Your task to perform on an android device: Go to Android settings Image 0: 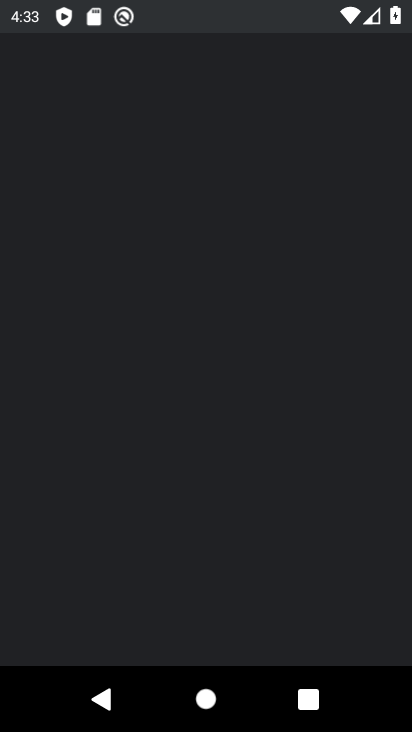
Step 0: drag from (334, 586) to (345, 256)
Your task to perform on an android device: Go to Android settings Image 1: 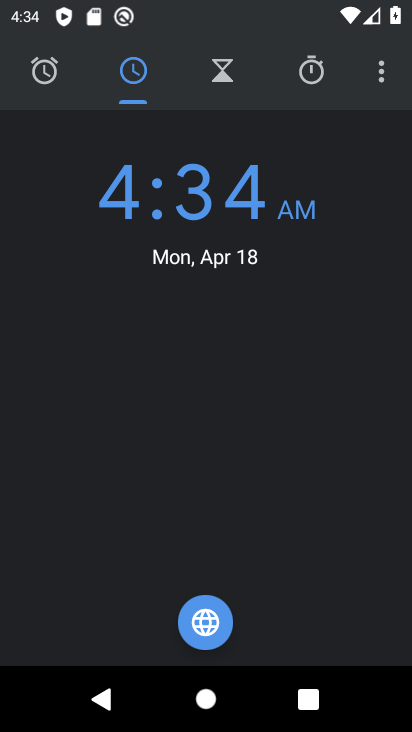
Step 1: press home button
Your task to perform on an android device: Go to Android settings Image 2: 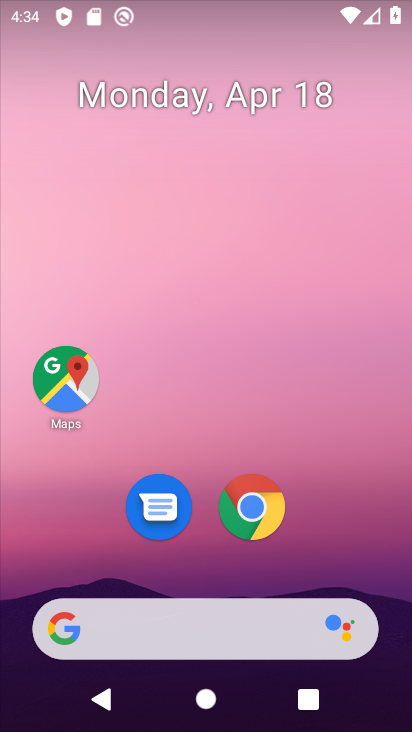
Step 2: drag from (248, 521) to (219, 59)
Your task to perform on an android device: Go to Android settings Image 3: 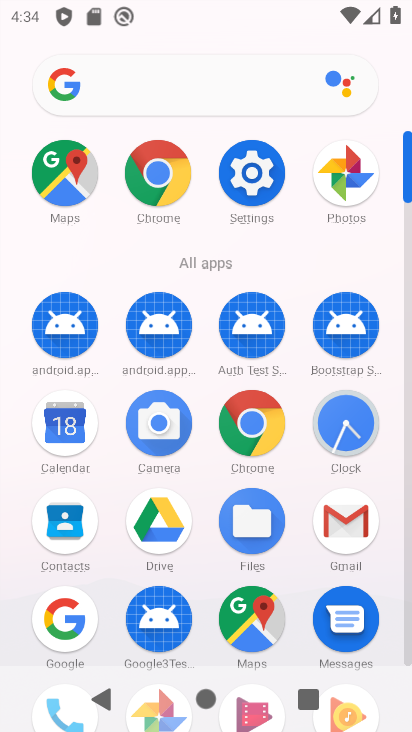
Step 3: click (257, 184)
Your task to perform on an android device: Go to Android settings Image 4: 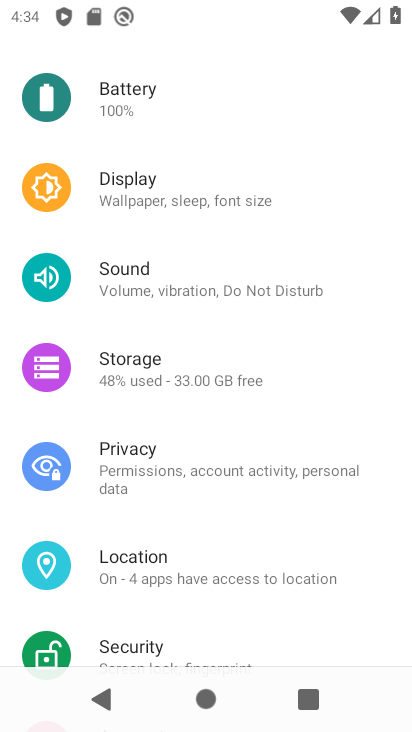
Step 4: drag from (268, 200) to (198, 680)
Your task to perform on an android device: Go to Android settings Image 5: 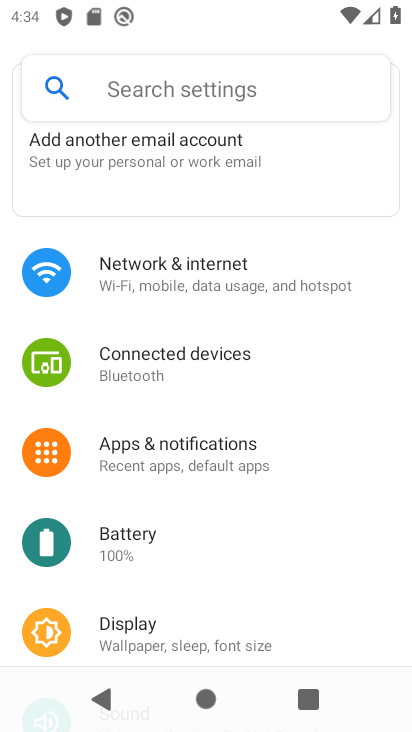
Step 5: drag from (263, 595) to (284, 163)
Your task to perform on an android device: Go to Android settings Image 6: 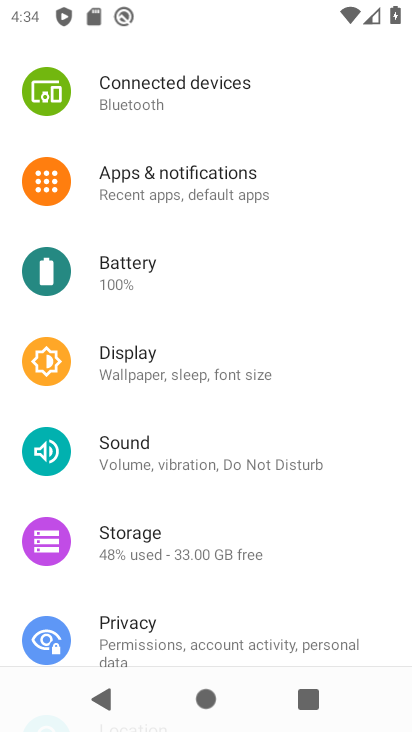
Step 6: drag from (330, 630) to (299, 186)
Your task to perform on an android device: Go to Android settings Image 7: 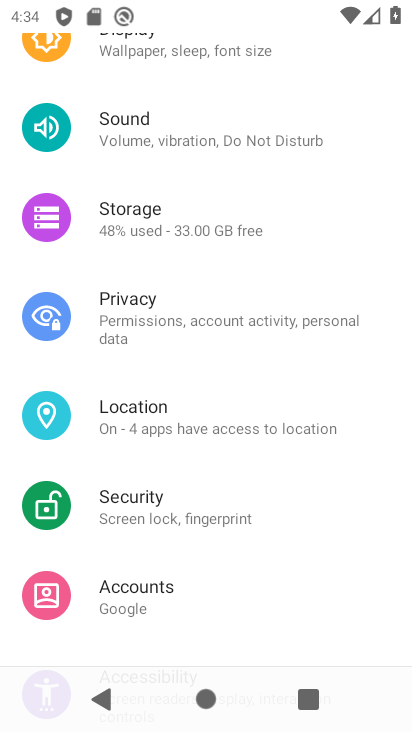
Step 7: drag from (275, 565) to (248, 168)
Your task to perform on an android device: Go to Android settings Image 8: 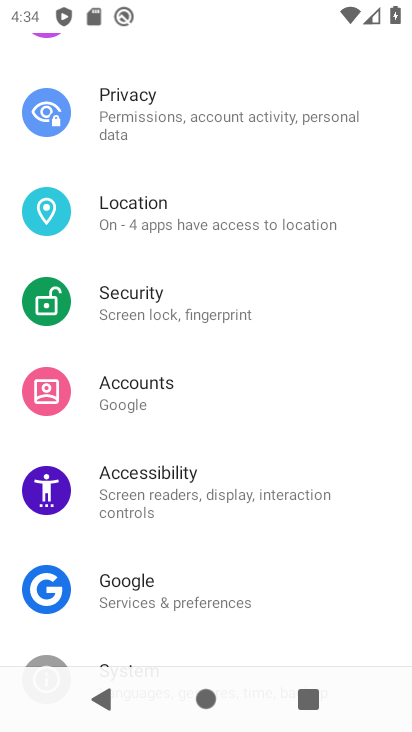
Step 8: drag from (226, 574) to (226, 219)
Your task to perform on an android device: Go to Android settings Image 9: 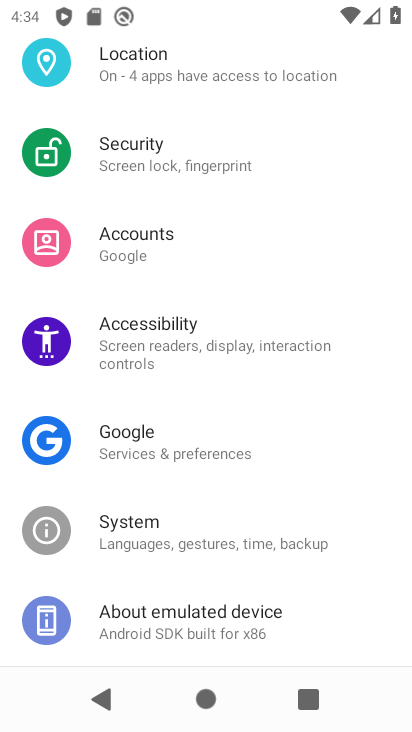
Step 9: click (230, 621)
Your task to perform on an android device: Go to Android settings Image 10: 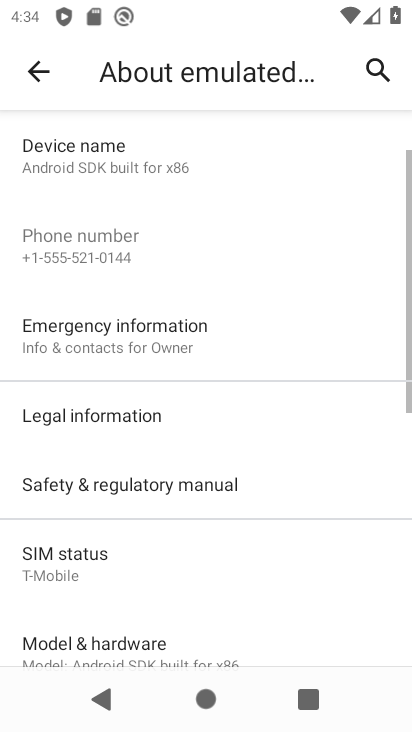
Step 10: drag from (180, 288) to (177, 703)
Your task to perform on an android device: Go to Android settings Image 11: 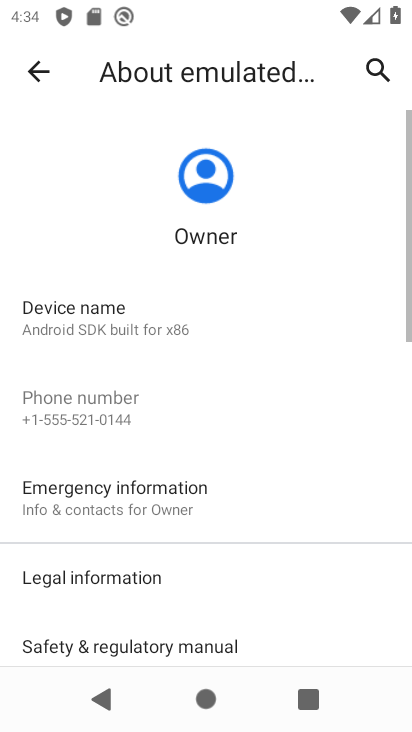
Step 11: drag from (194, 252) to (206, 73)
Your task to perform on an android device: Go to Android settings Image 12: 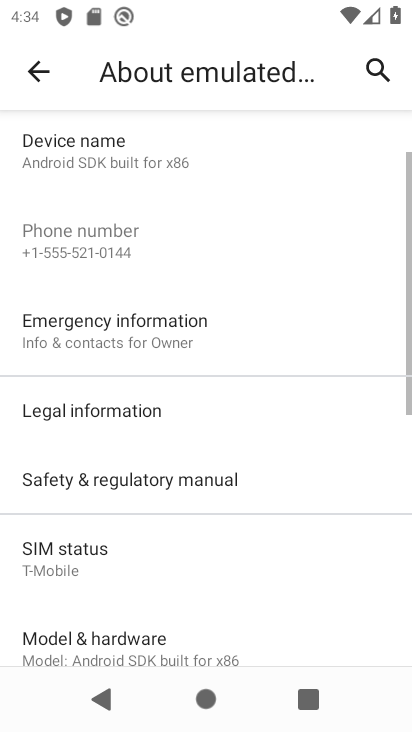
Step 12: drag from (181, 596) to (165, 176)
Your task to perform on an android device: Go to Android settings Image 13: 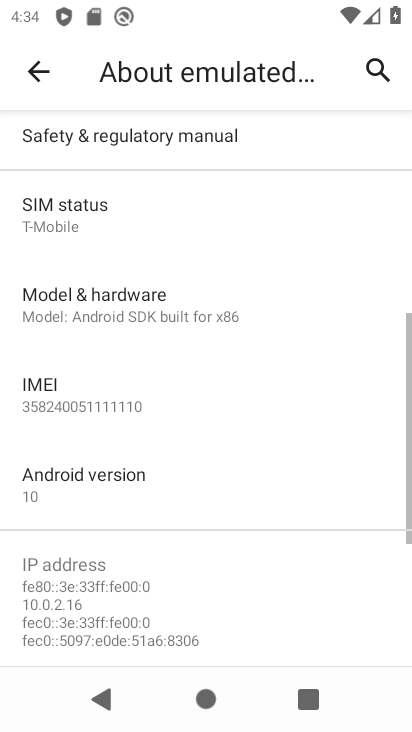
Step 13: drag from (151, 589) to (178, 193)
Your task to perform on an android device: Go to Android settings Image 14: 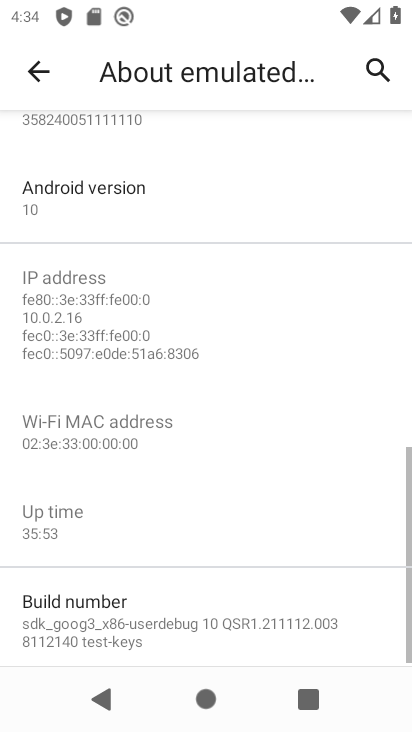
Step 14: drag from (219, 186) to (204, 623)
Your task to perform on an android device: Go to Android settings Image 15: 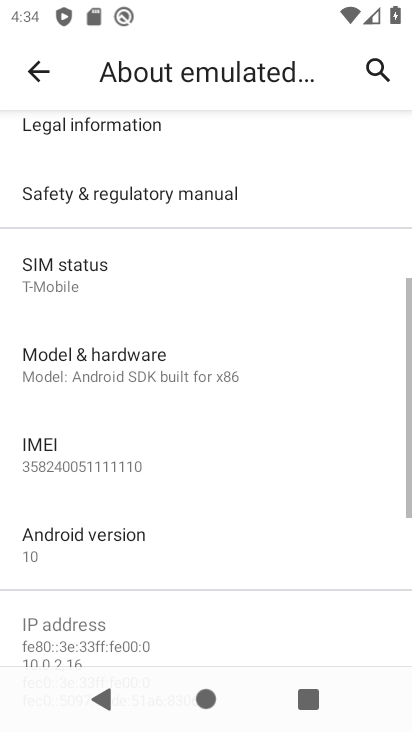
Step 15: drag from (362, 332) to (346, 636)
Your task to perform on an android device: Go to Android settings Image 16: 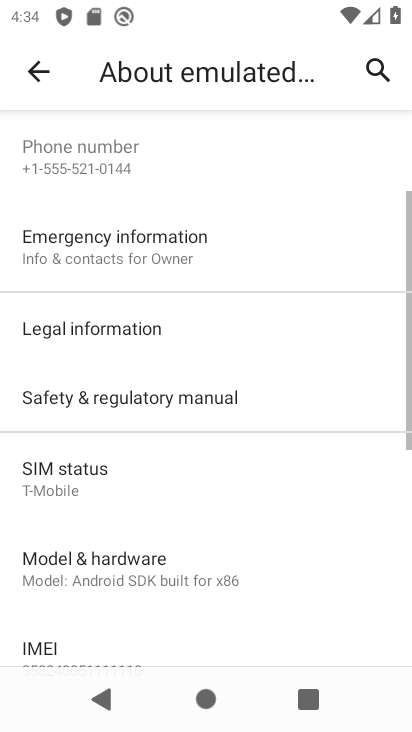
Step 16: drag from (261, 344) to (253, 668)
Your task to perform on an android device: Go to Android settings Image 17: 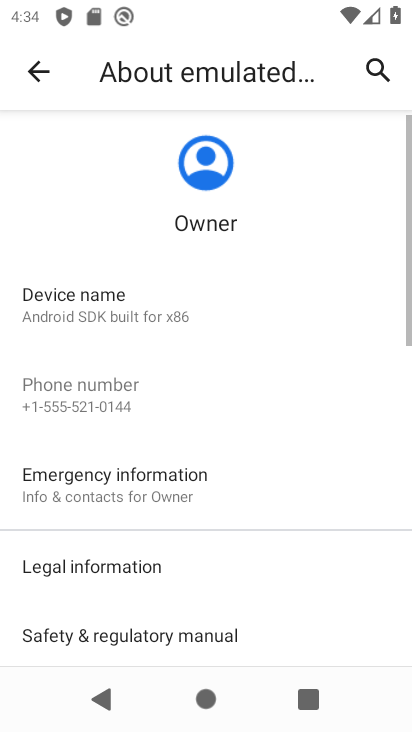
Step 17: click (39, 66)
Your task to perform on an android device: Go to Android settings Image 18: 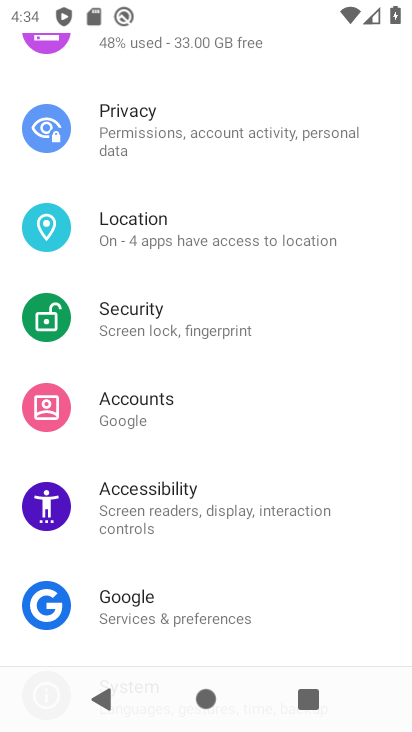
Step 18: task complete